Your task to perform on an android device: turn off smart reply in the gmail app Image 0: 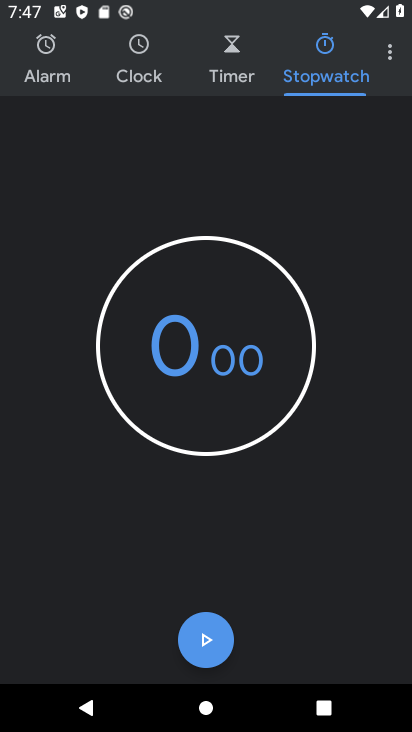
Step 0: press home button
Your task to perform on an android device: turn off smart reply in the gmail app Image 1: 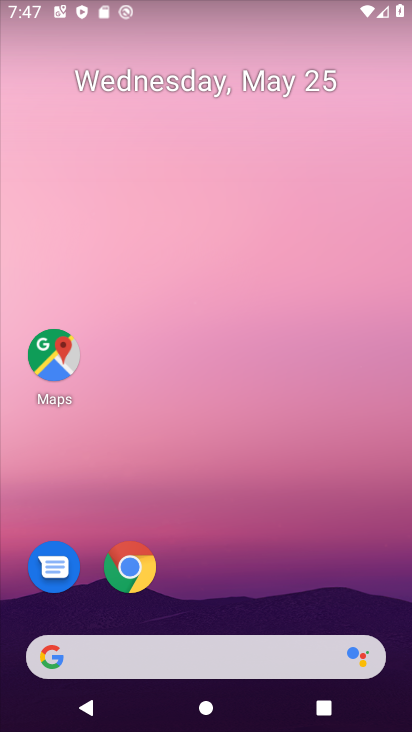
Step 1: drag from (278, 565) to (291, 170)
Your task to perform on an android device: turn off smart reply in the gmail app Image 2: 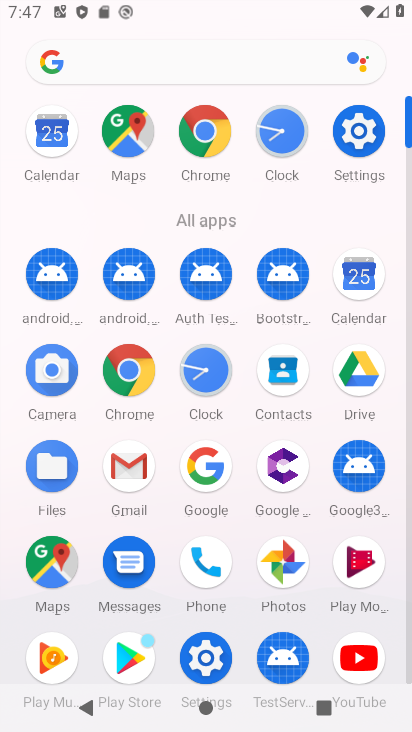
Step 2: click (128, 484)
Your task to perform on an android device: turn off smart reply in the gmail app Image 3: 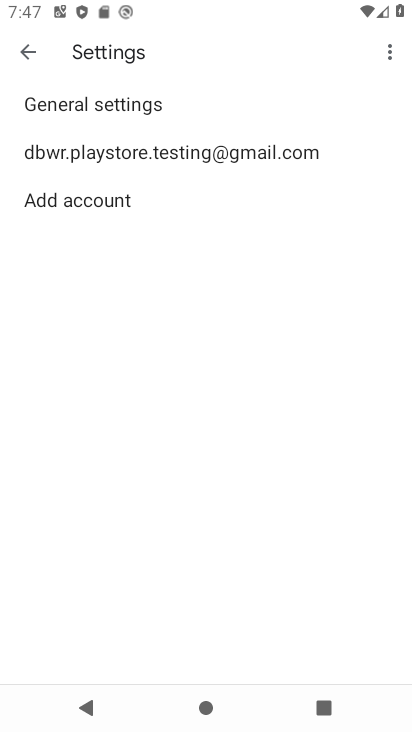
Step 3: click (63, 163)
Your task to perform on an android device: turn off smart reply in the gmail app Image 4: 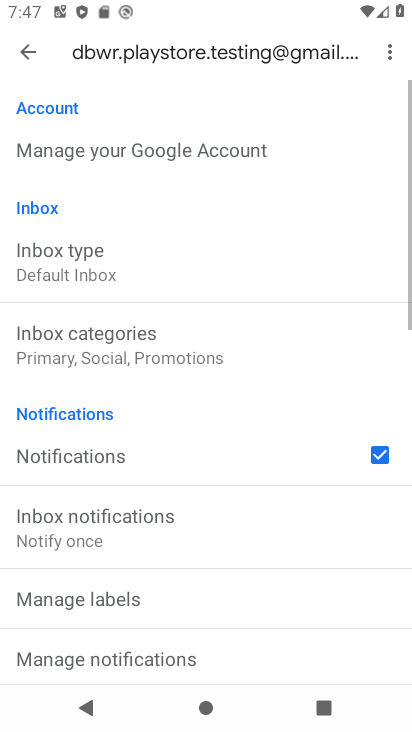
Step 4: drag from (187, 582) to (263, 136)
Your task to perform on an android device: turn off smart reply in the gmail app Image 5: 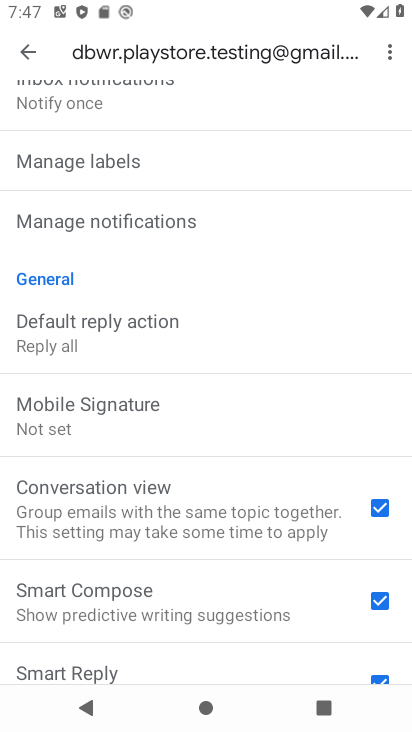
Step 5: drag from (235, 617) to (249, 463)
Your task to perform on an android device: turn off smart reply in the gmail app Image 6: 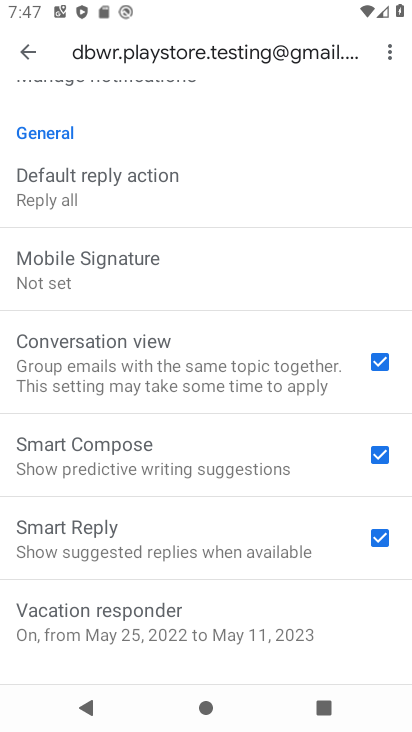
Step 6: click (322, 551)
Your task to perform on an android device: turn off smart reply in the gmail app Image 7: 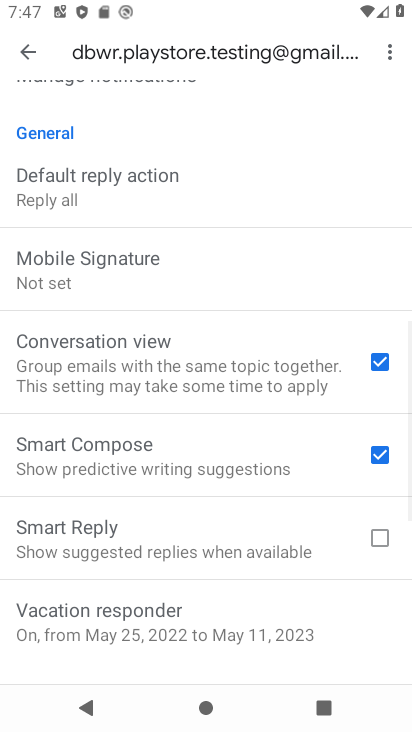
Step 7: task complete